Your task to perform on an android device: check out phone information Image 0: 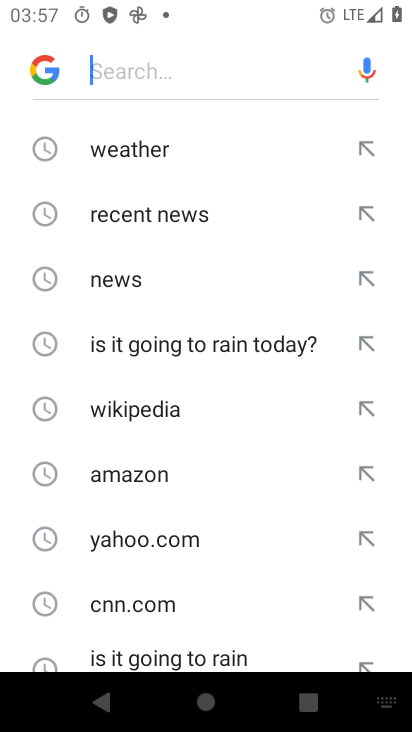
Step 0: press home button
Your task to perform on an android device: check out phone information Image 1: 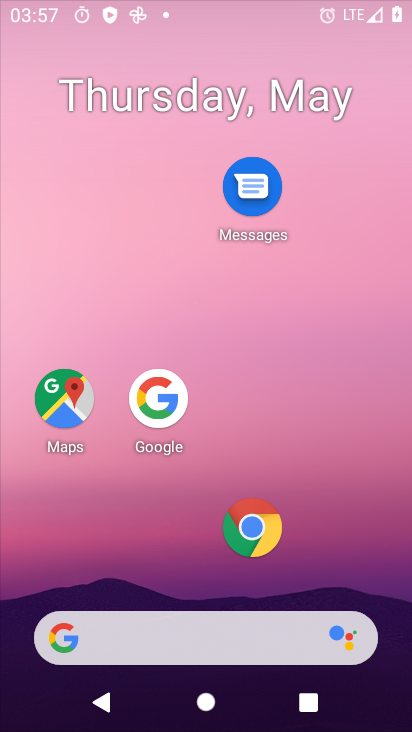
Step 1: drag from (211, 579) to (227, 351)
Your task to perform on an android device: check out phone information Image 2: 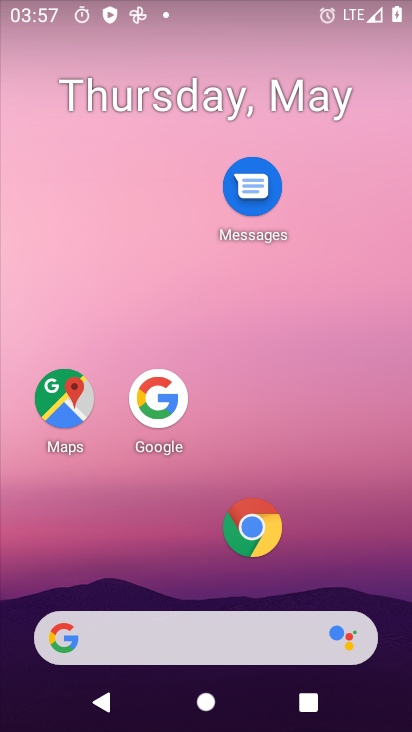
Step 2: drag from (227, 594) to (249, 1)
Your task to perform on an android device: check out phone information Image 3: 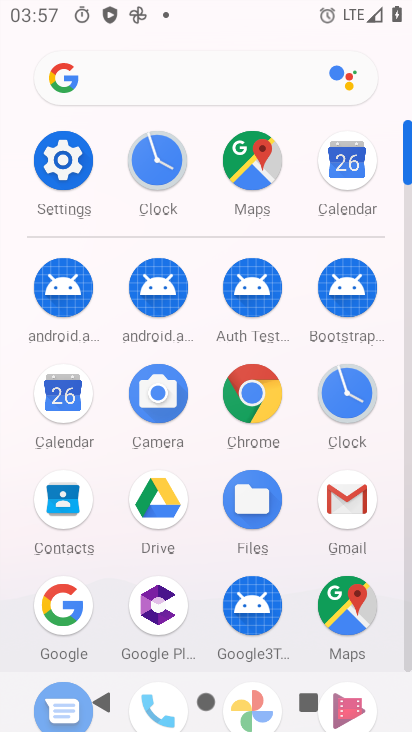
Step 3: click (63, 147)
Your task to perform on an android device: check out phone information Image 4: 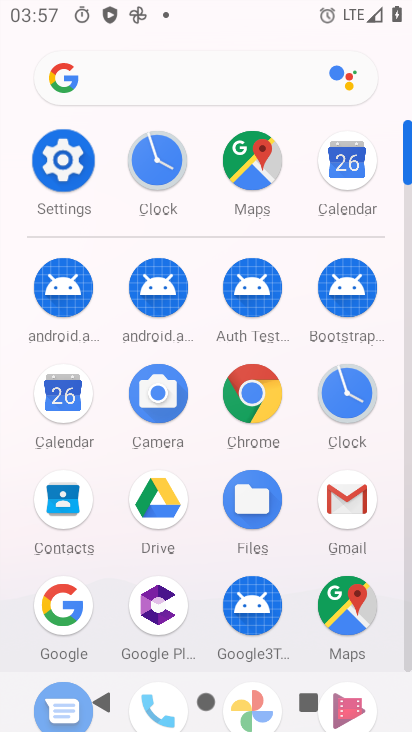
Step 4: click (63, 147)
Your task to perform on an android device: check out phone information Image 5: 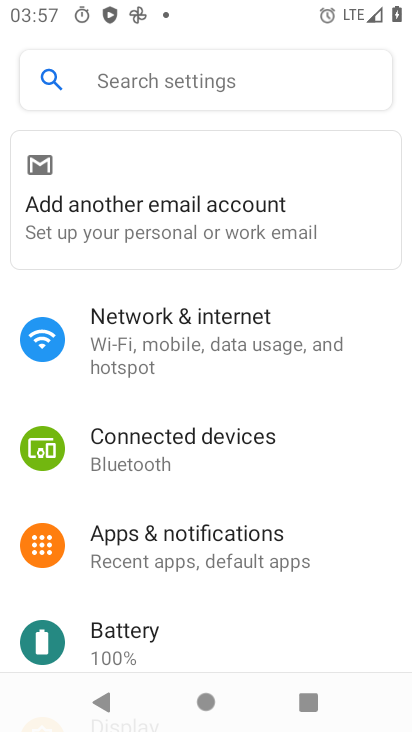
Step 5: drag from (180, 613) to (249, 76)
Your task to perform on an android device: check out phone information Image 6: 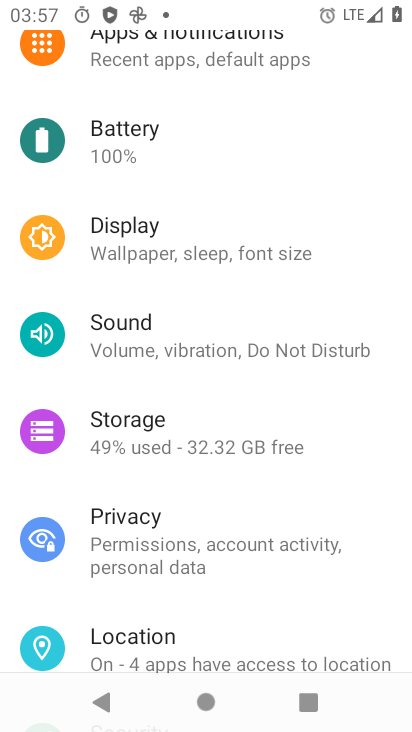
Step 6: drag from (177, 645) to (243, 82)
Your task to perform on an android device: check out phone information Image 7: 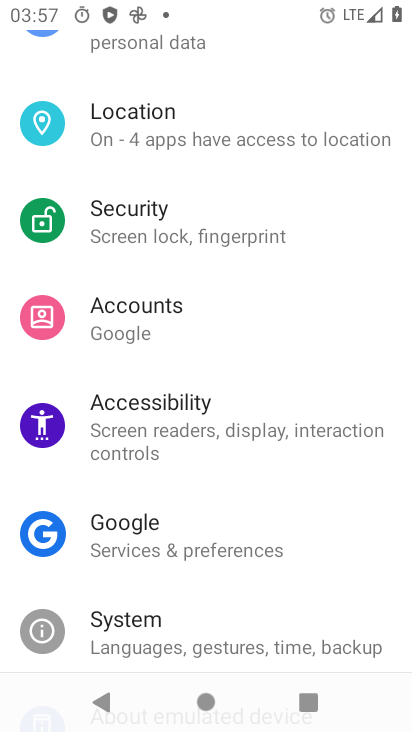
Step 7: drag from (195, 608) to (230, 262)
Your task to perform on an android device: check out phone information Image 8: 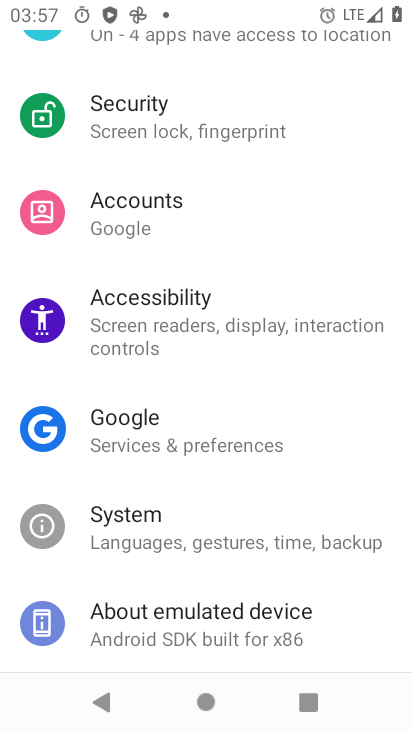
Step 8: click (133, 625)
Your task to perform on an android device: check out phone information Image 9: 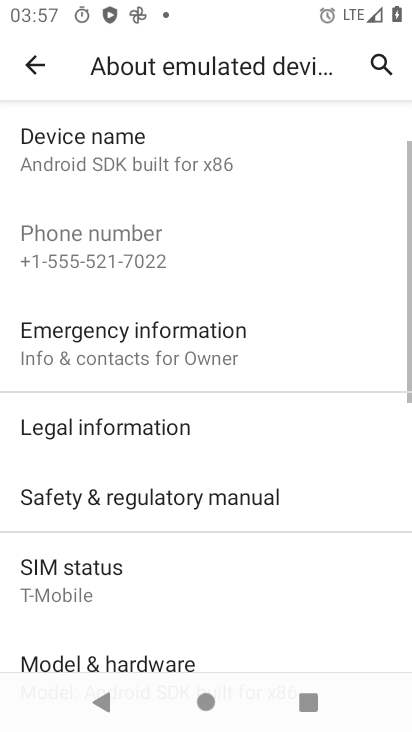
Step 9: task complete